Your task to perform on an android device: Do I have any events tomorrow? Image 0: 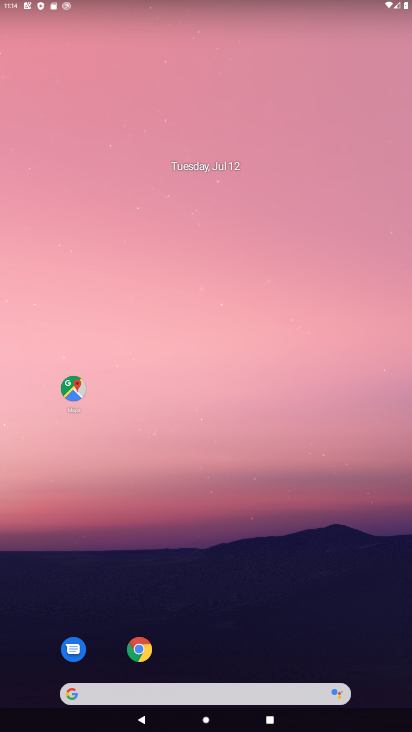
Step 0: drag from (380, 645) to (240, 146)
Your task to perform on an android device: Do I have any events tomorrow? Image 1: 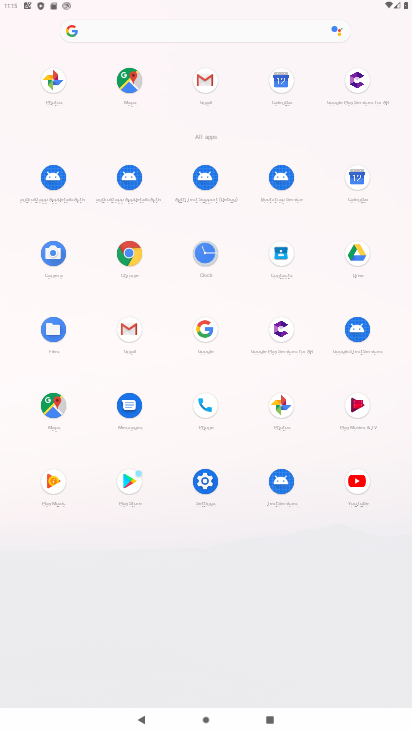
Step 1: click (355, 197)
Your task to perform on an android device: Do I have any events tomorrow? Image 2: 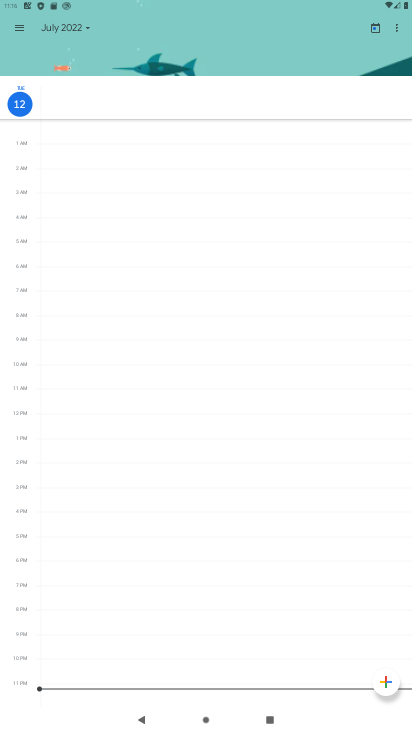
Step 2: click (85, 34)
Your task to perform on an android device: Do I have any events tomorrow? Image 3: 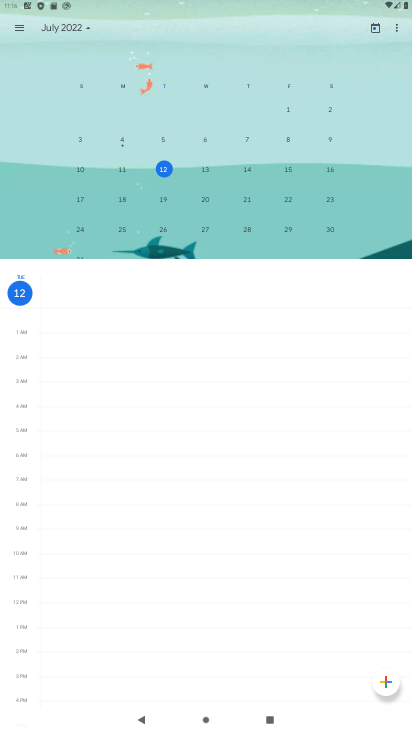
Step 3: click (208, 174)
Your task to perform on an android device: Do I have any events tomorrow? Image 4: 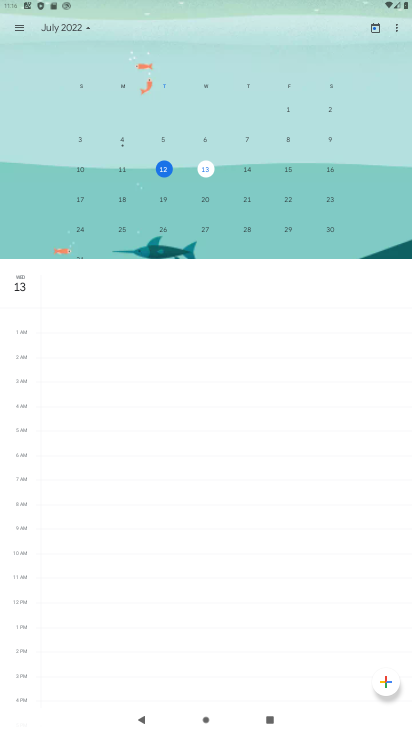
Step 4: task complete